Your task to perform on an android device: set the stopwatch Image 0: 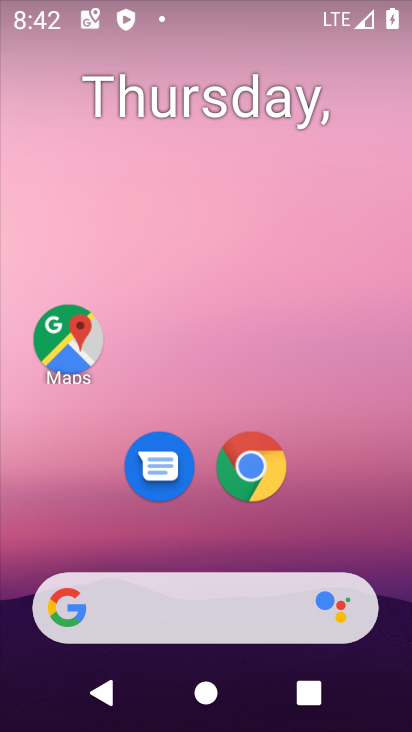
Step 0: drag from (347, 542) to (338, 62)
Your task to perform on an android device: set the stopwatch Image 1: 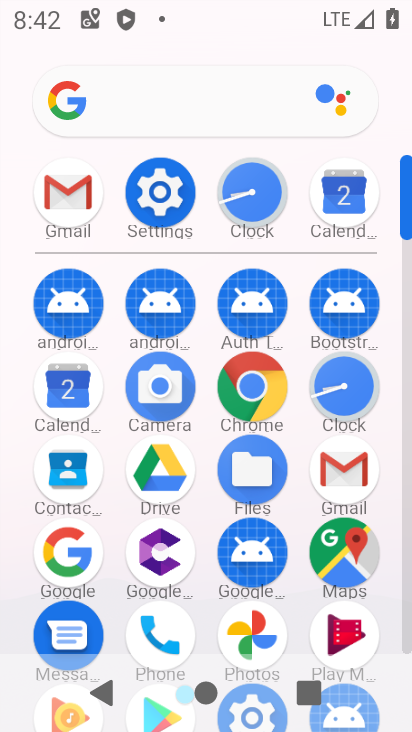
Step 1: click (236, 181)
Your task to perform on an android device: set the stopwatch Image 2: 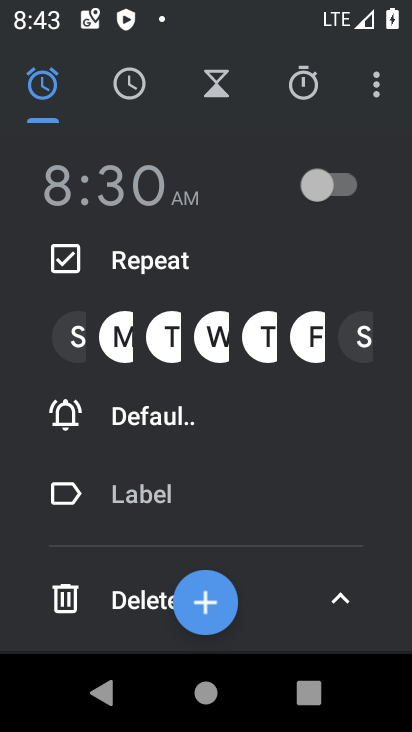
Step 2: click (314, 85)
Your task to perform on an android device: set the stopwatch Image 3: 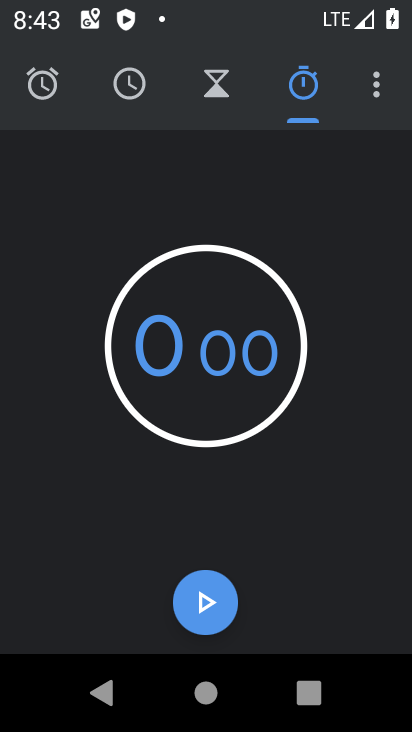
Step 3: click (193, 605)
Your task to perform on an android device: set the stopwatch Image 4: 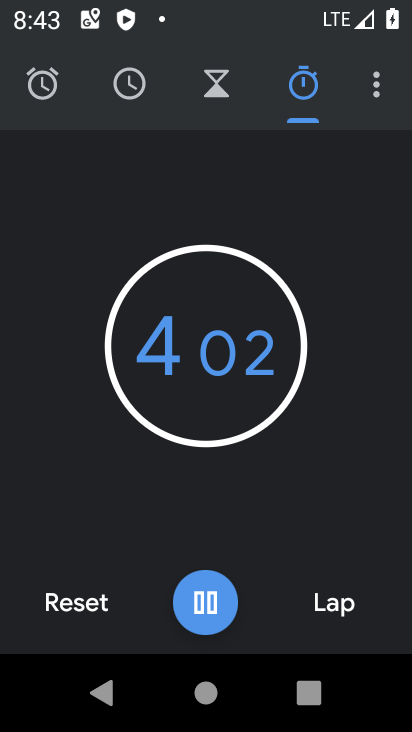
Step 4: click (214, 616)
Your task to perform on an android device: set the stopwatch Image 5: 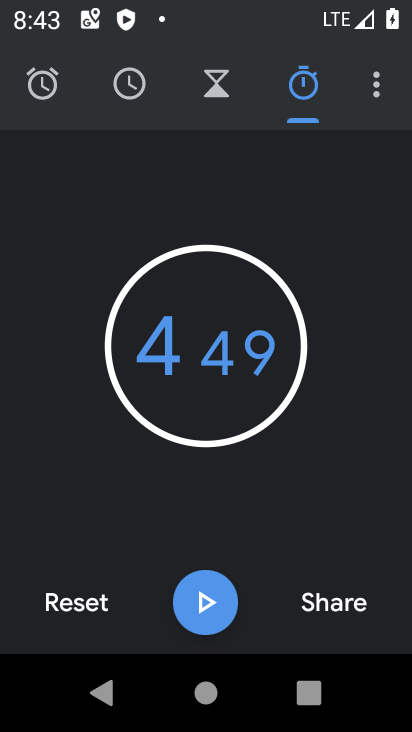
Step 5: task complete